Your task to perform on an android device: Search for Mexican restaurants on Maps Image 0: 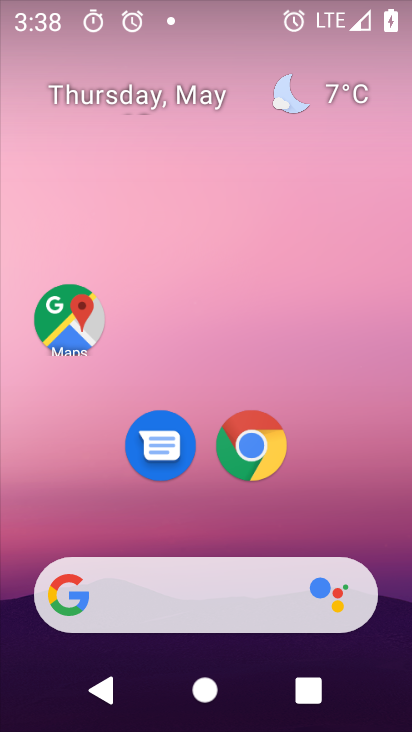
Step 0: click (70, 324)
Your task to perform on an android device: Search for Mexican restaurants on Maps Image 1: 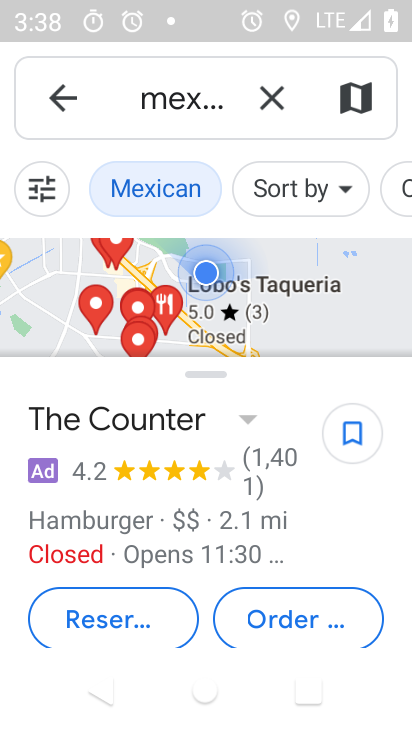
Step 1: task complete